Your task to perform on an android device: Open wifi settings Image 0: 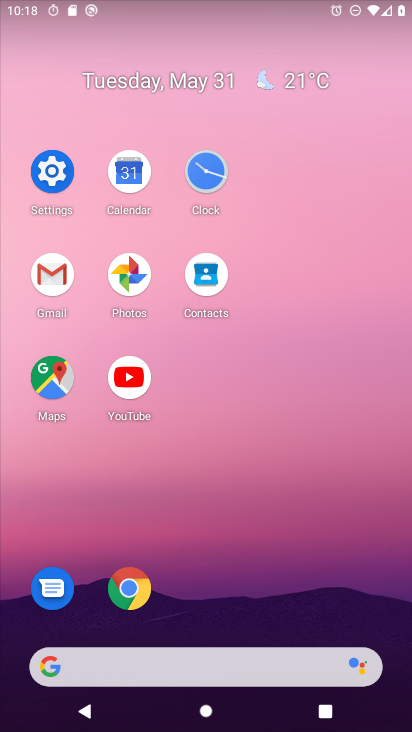
Step 0: click (60, 186)
Your task to perform on an android device: Open wifi settings Image 1: 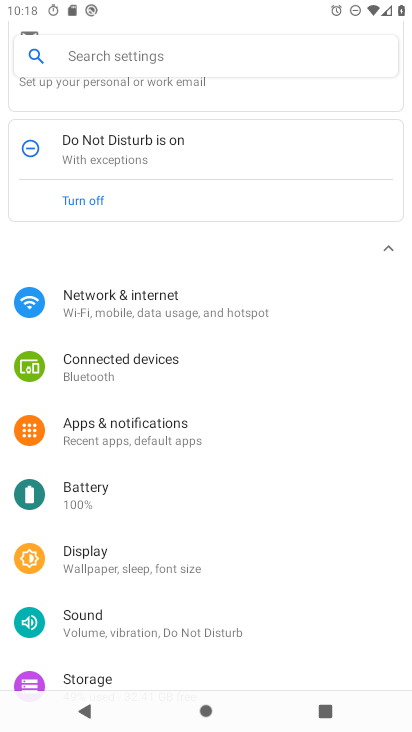
Step 1: click (188, 314)
Your task to perform on an android device: Open wifi settings Image 2: 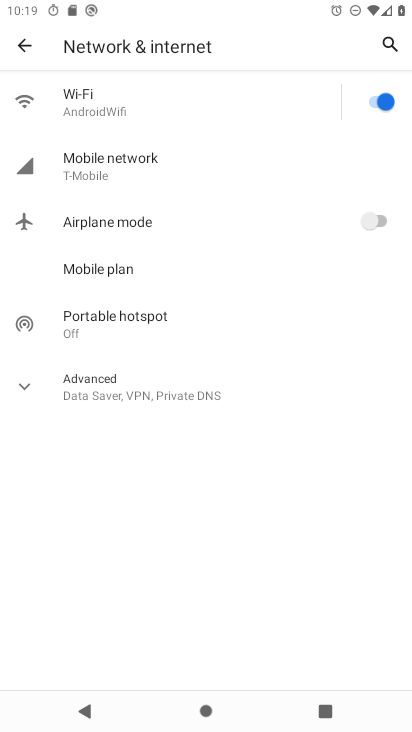
Step 2: click (128, 111)
Your task to perform on an android device: Open wifi settings Image 3: 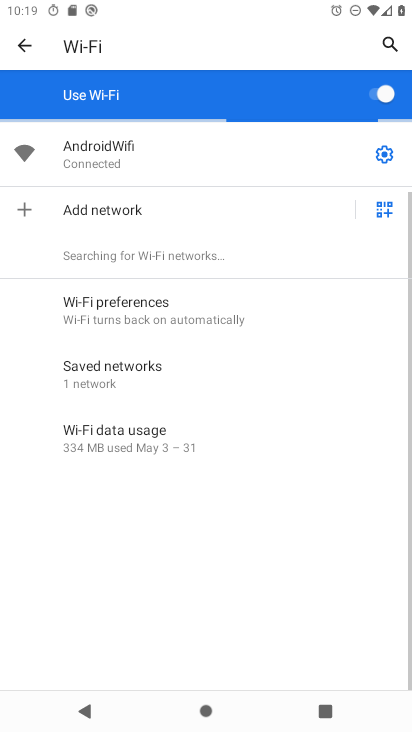
Step 3: click (380, 155)
Your task to perform on an android device: Open wifi settings Image 4: 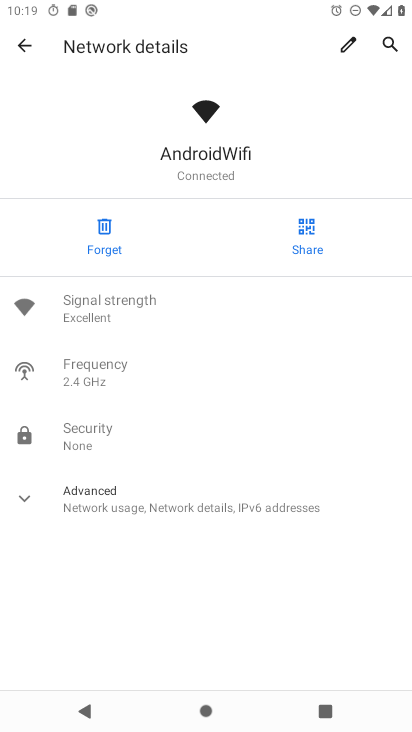
Step 4: task complete